Your task to perform on an android device: Go to settings Image 0: 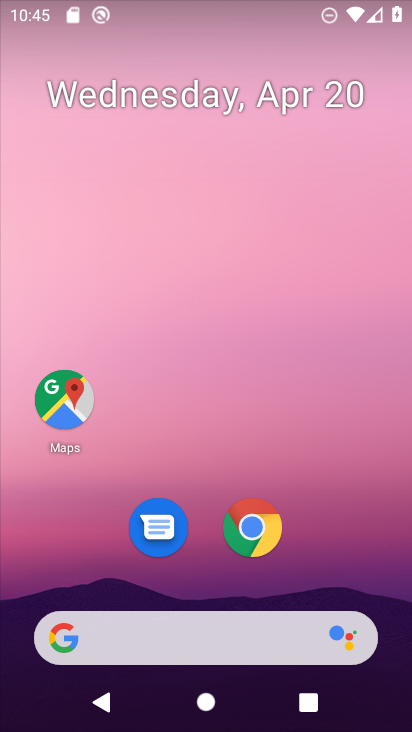
Step 0: drag from (184, 580) to (289, 17)
Your task to perform on an android device: Go to settings Image 1: 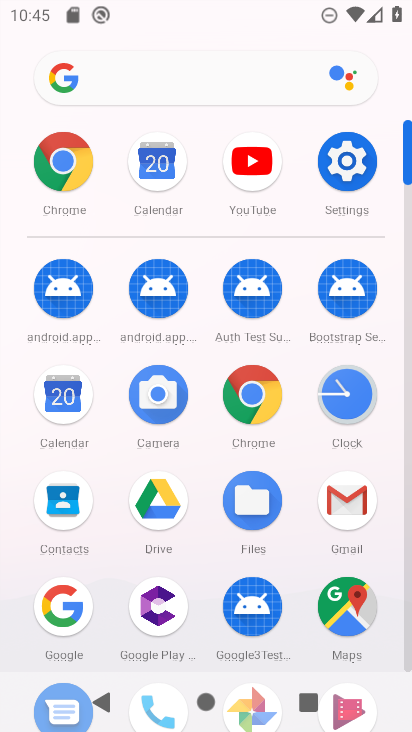
Step 1: click (351, 169)
Your task to perform on an android device: Go to settings Image 2: 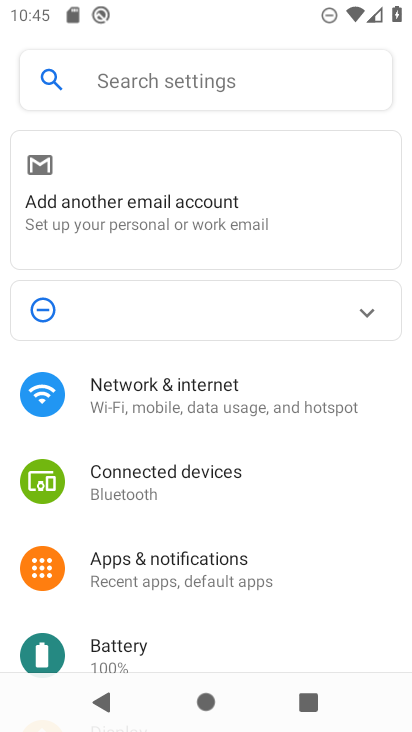
Step 2: task complete